Your task to perform on an android device: Open eBay Image 0: 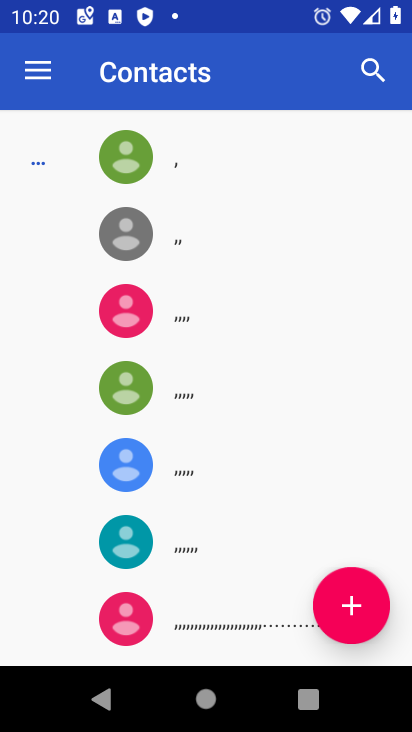
Step 0: press home button
Your task to perform on an android device: Open eBay Image 1: 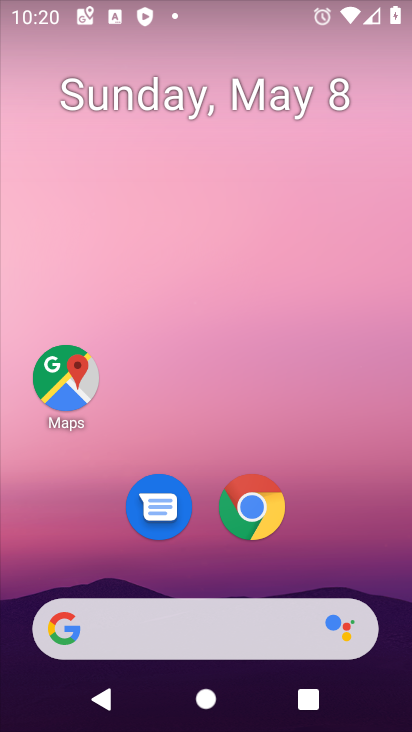
Step 1: click (145, 621)
Your task to perform on an android device: Open eBay Image 2: 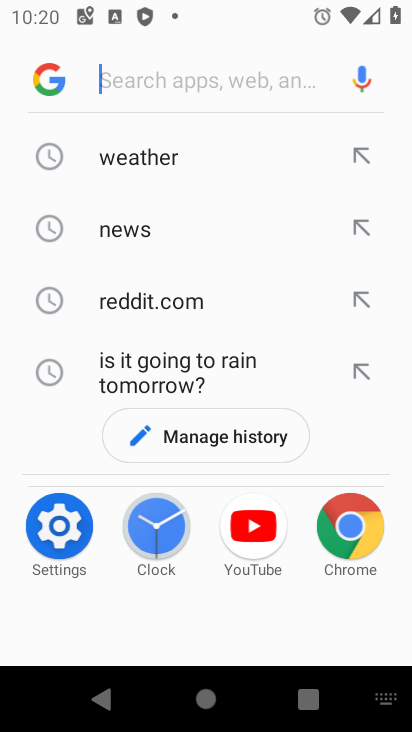
Step 2: type "ebay"
Your task to perform on an android device: Open eBay Image 3: 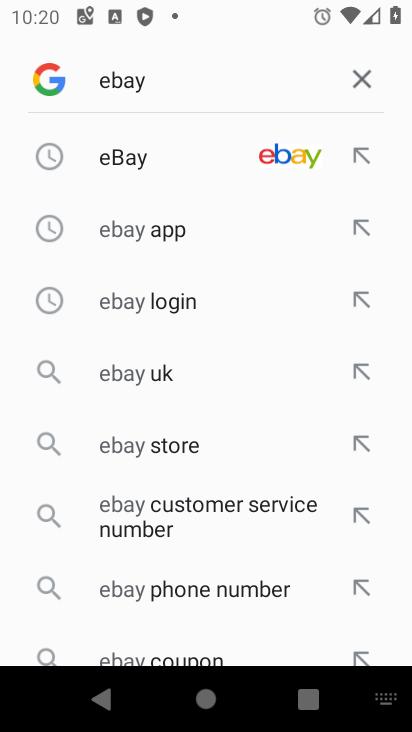
Step 3: click (303, 144)
Your task to perform on an android device: Open eBay Image 4: 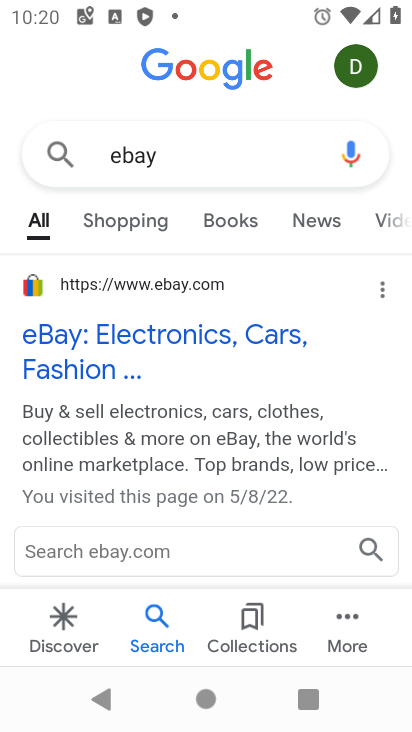
Step 4: click (210, 290)
Your task to perform on an android device: Open eBay Image 5: 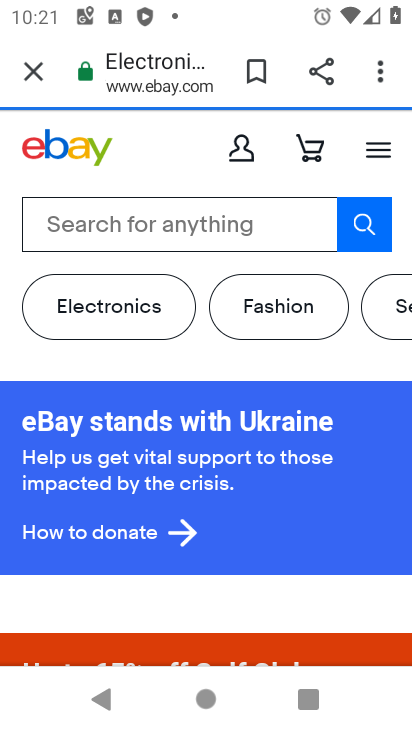
Step 5: task complete